Your task to perform on an android device: open device folders in google photos Image 0: 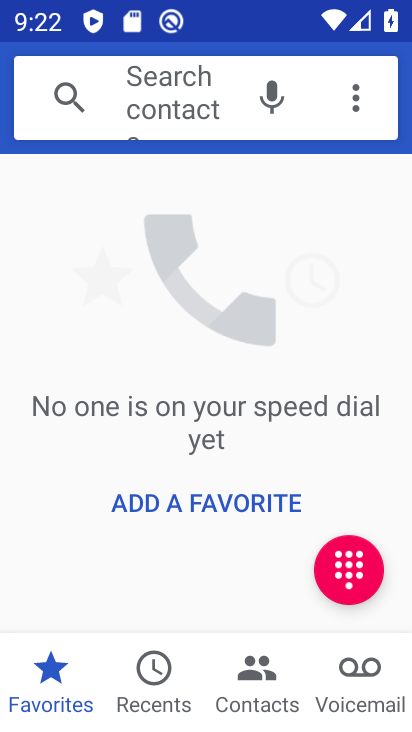
Step 0: press home button
Your task to perform on an android device: open device folders in google photos Image 1: 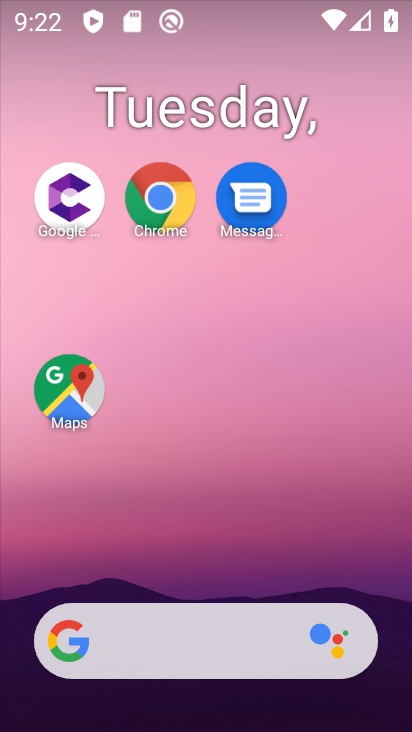
Step 1: drag from (219, 560) to (200, 1)
Your task to perform on an android device: open device folders in google photos Image 2: 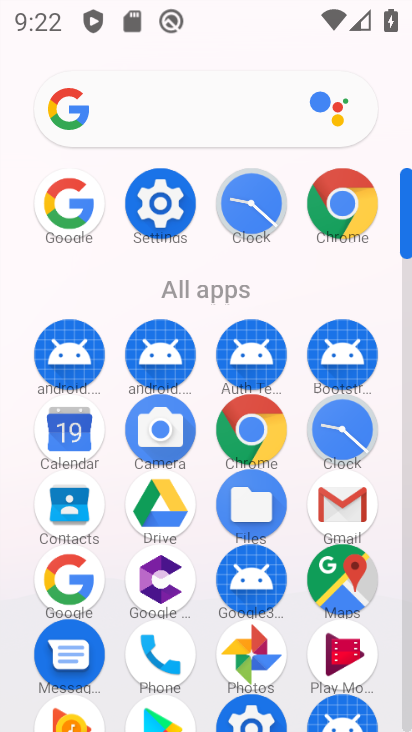
Step 2: click (258, 648)
Your task to perform on an android device: open device folders in google photos Image 3: 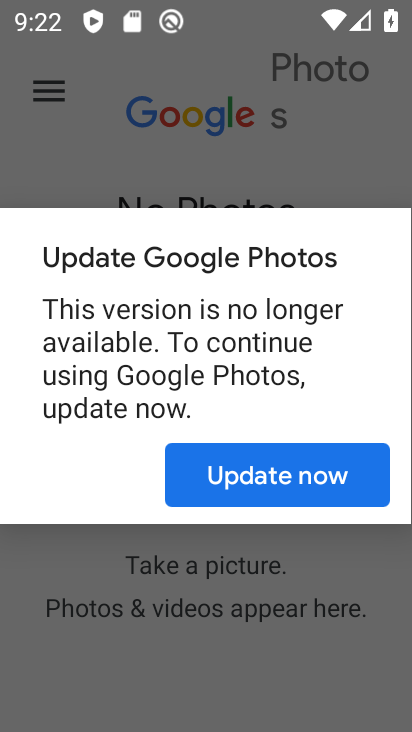
Step 3: click (243, 467)
Your task to perform on an android device: open device folders in google photos Image 4: 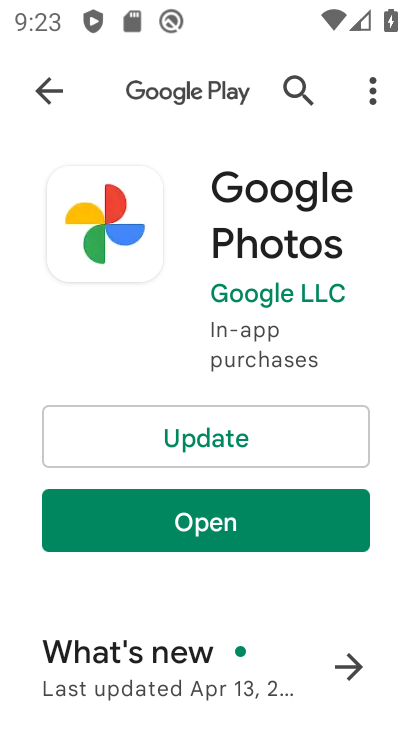
Step 4: click (237, 518)
Your task to perform on an android device: open device folders in google photos Image 5: 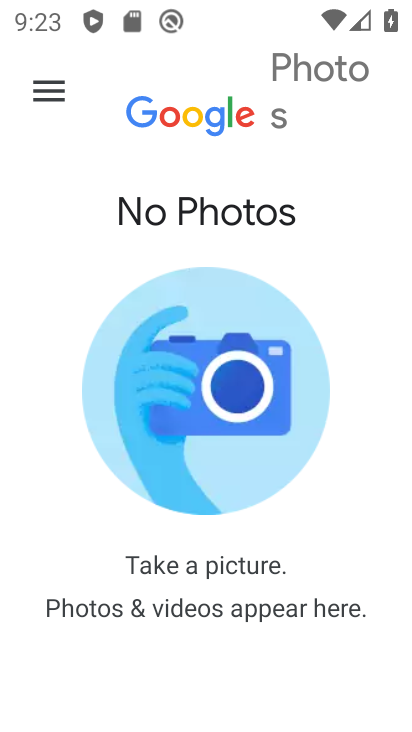
Step 5: click (61, 88)
Your task to perform on an android device: open device folders in google photos Image 6: 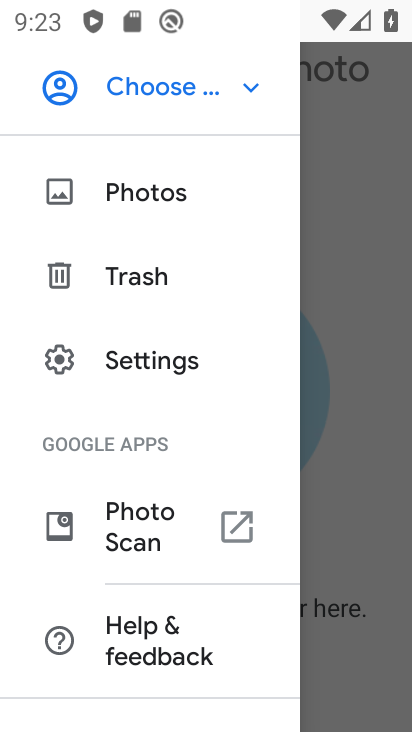
Step 6: click (181, 68)
Your task to perform on an android device: open device folders in google photos Image 7: 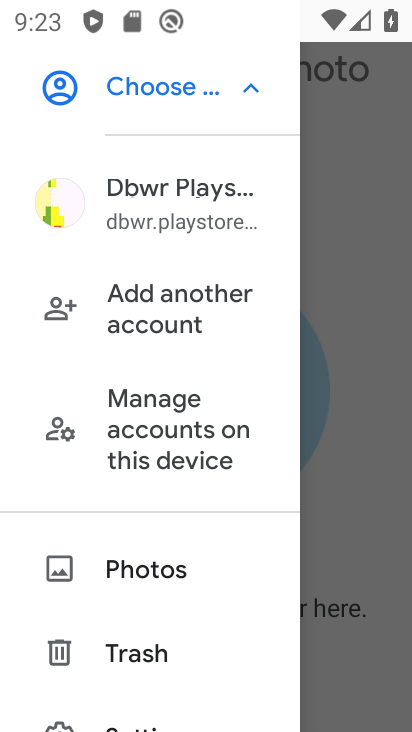
Step 7: click (176, 175)
Your task to perform on an android device: open device folders in google photos Image 8: 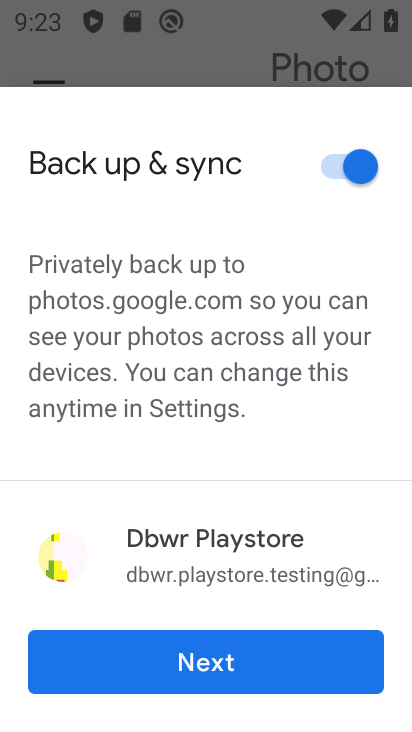
Step 8: click (219, 654)
Your task to perform on an android device: open device folders in google photos Image 9: 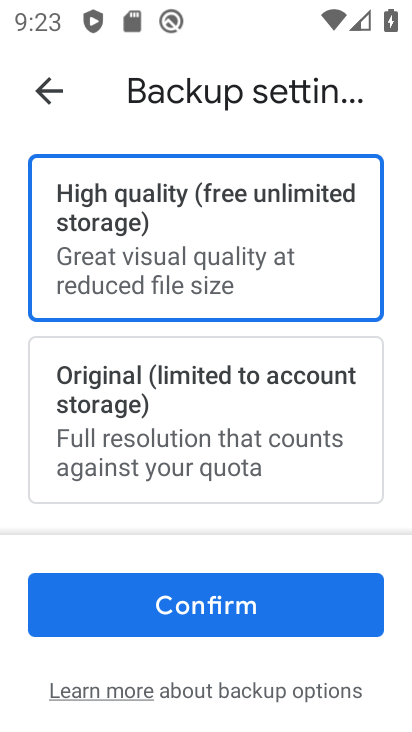
Step 9: click (224, 611)
Your task to perform on an android device: open device folders in google photos Image 10: 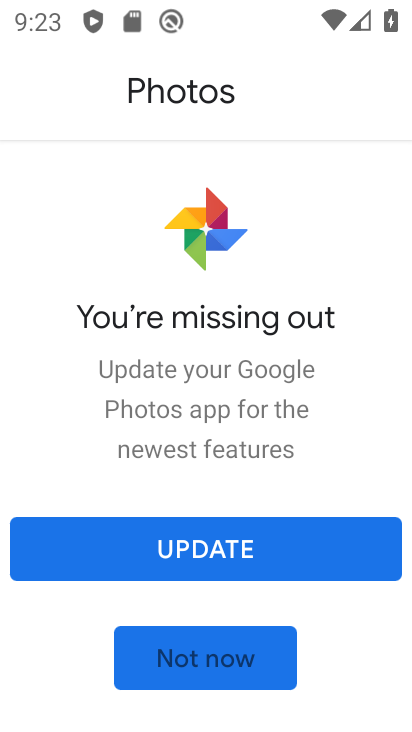
Step 10: click (205, 653)
Your task to perform on an android device: open device folders in google photos Image 11: 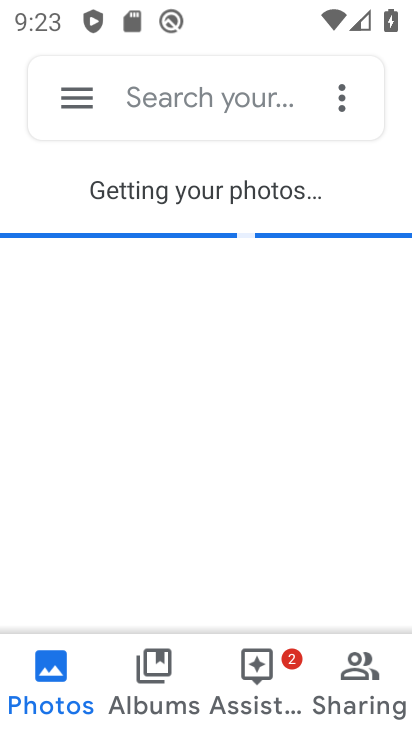
Step 11: click (66, 101)
Your task to perform on an android device: open device folders in google photos Image 12: 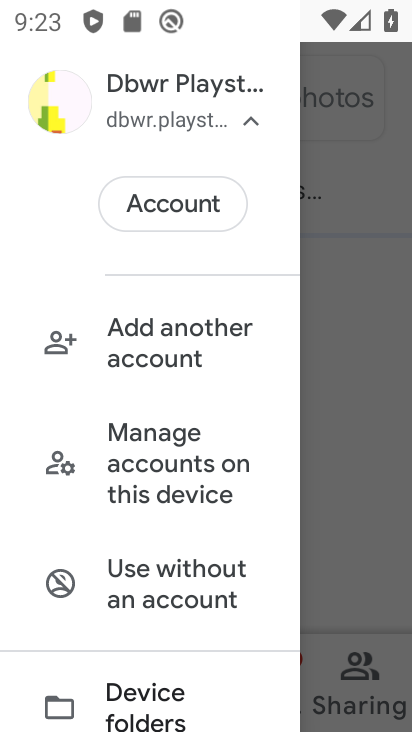
Step 12: drag from (171, 557) to (142, 296)
Your task to perform on an android device: open device folders in google photos Image 13: 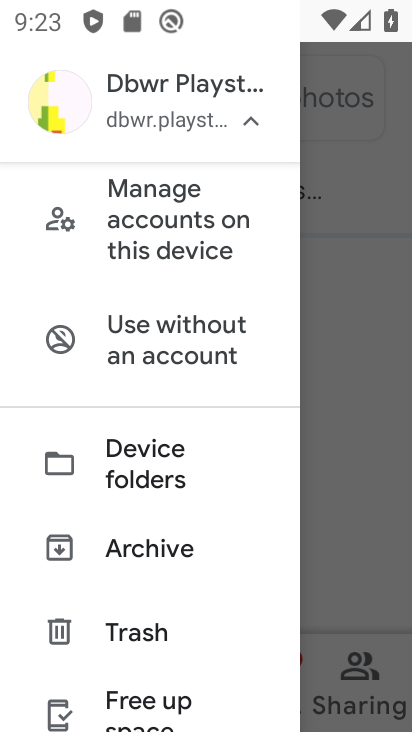
Step 13: click (152, 452)
Your task to perform on an android device: open device folders in google photos Image 14: 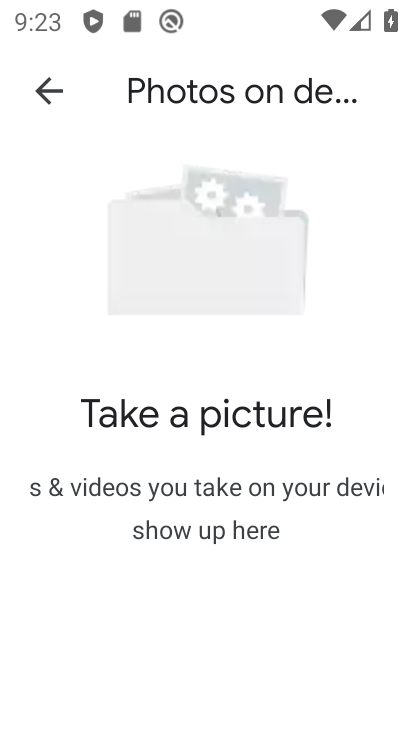
Step 14: task complete